Your task to perform on an android device: turn off location Image 0: 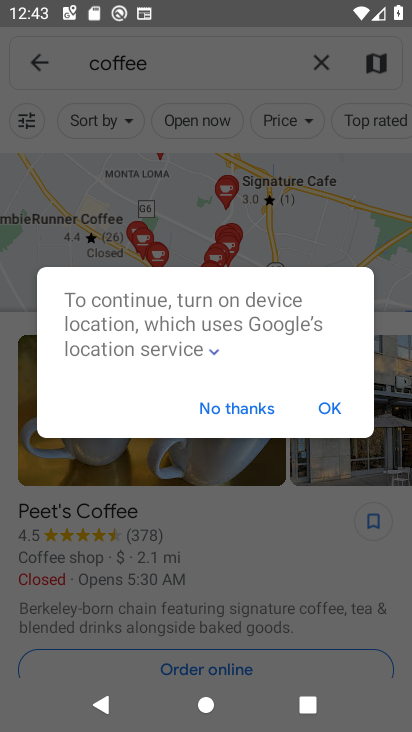
Step 0: press home button
Your task to perform on an android device: turn off location Image 1: 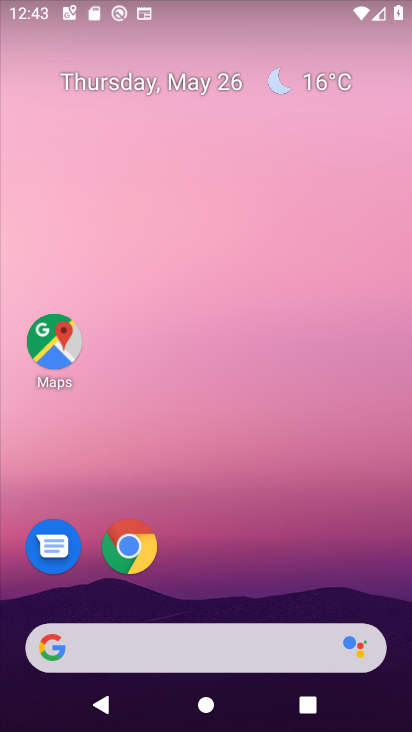
Step 1: drag from (226, 569) to (363, 213)
Your task to perform on an android device: turn off location Image 2: 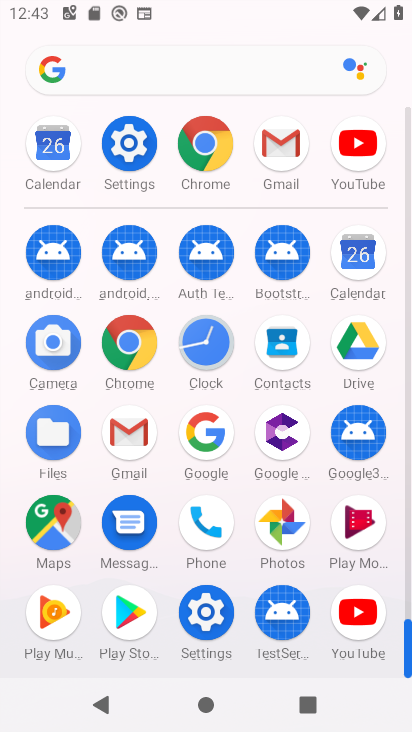
Step 2: click (208, 616)
Your task to perform on an android device: turn off location Image 3: 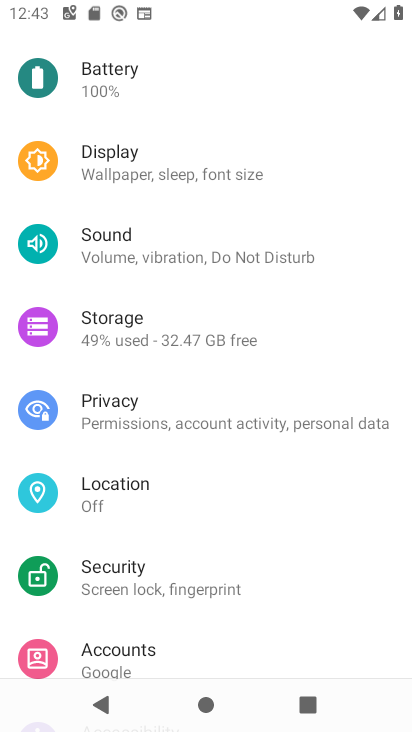
Step 3: click (160, 494)
Your task to perform on an android device: turn off location Image 4: 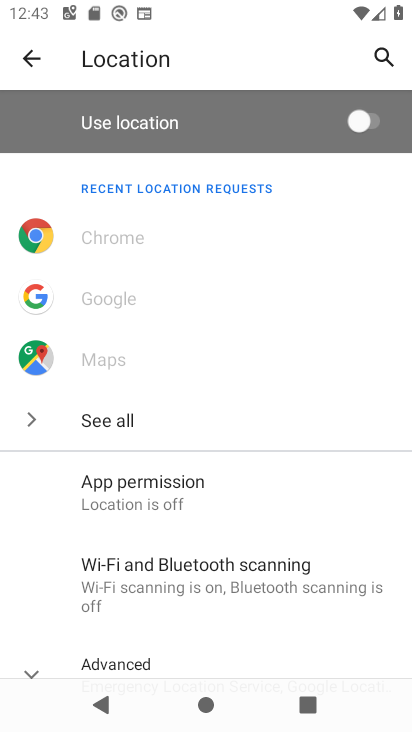
Step 4: task complete